Your task to perform on an android device: check data usage Image 0: 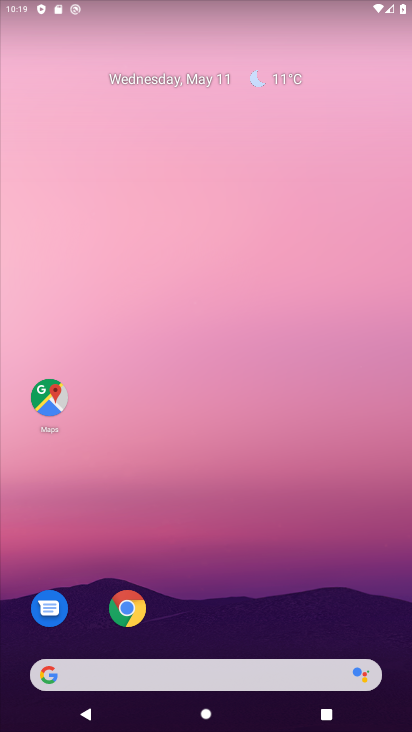
Step 0: drag from (229, 579) to (280, 331)
Your task to perform on an android device: check data usage Image 1: 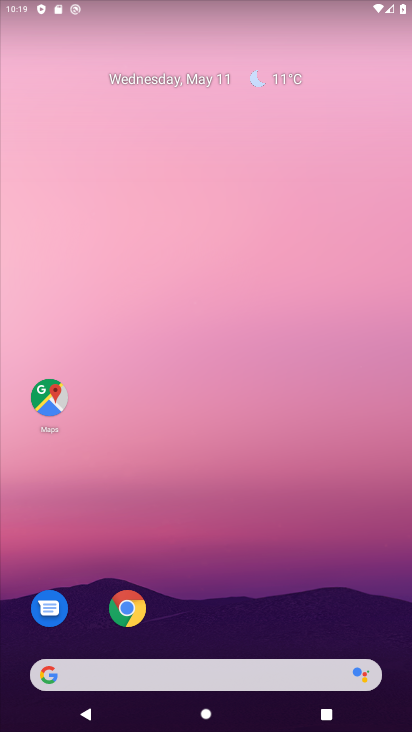
Step 1: drag from (182, 644) to (233, 256)
Your task to perform on an android device: check data usage Image 2: 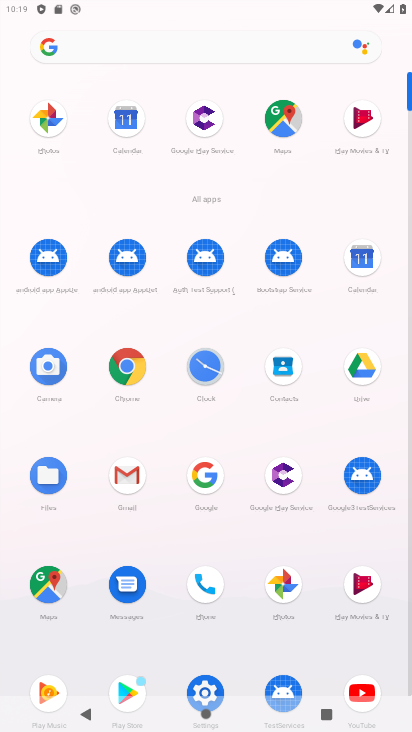
Step 2: click (208, 683)
Your task to perform on an android device: check data usage Image 3: 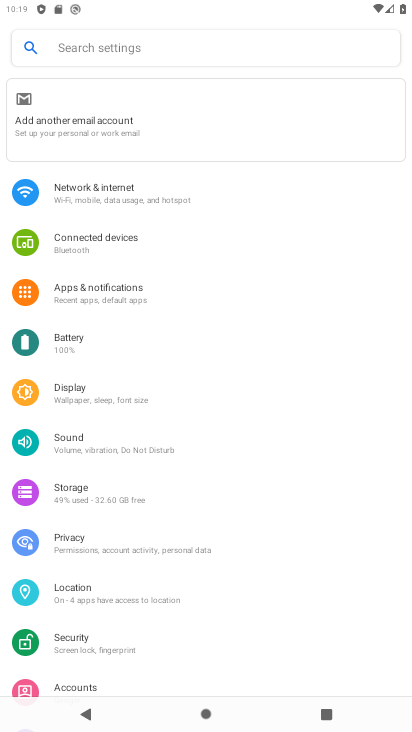
Step 3: click (172, 196)
Your task to perform on an android device: check data usage Image 4: 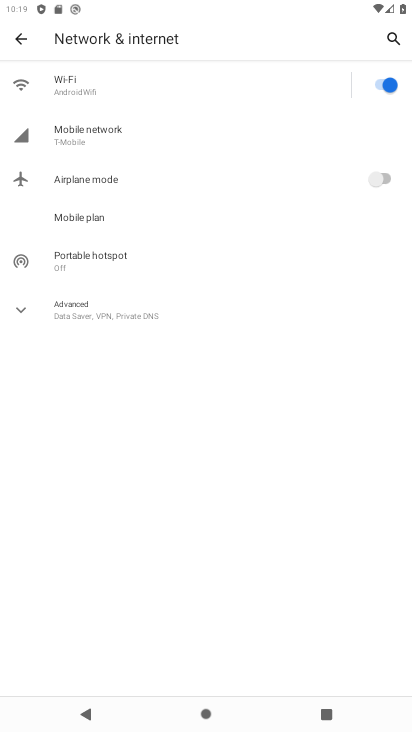
Step 4: click (96, 137)
Your task to perform on an android device: check data usage Image 5: 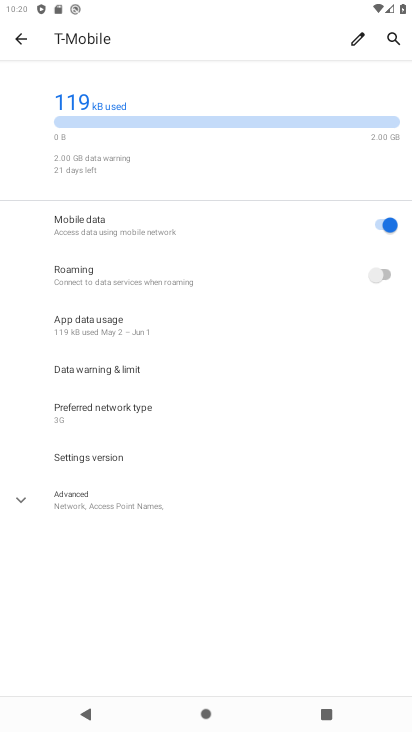
Step 5: task complete